Your task to perform on an android device: move a message to another label in the gmail app Image 0: 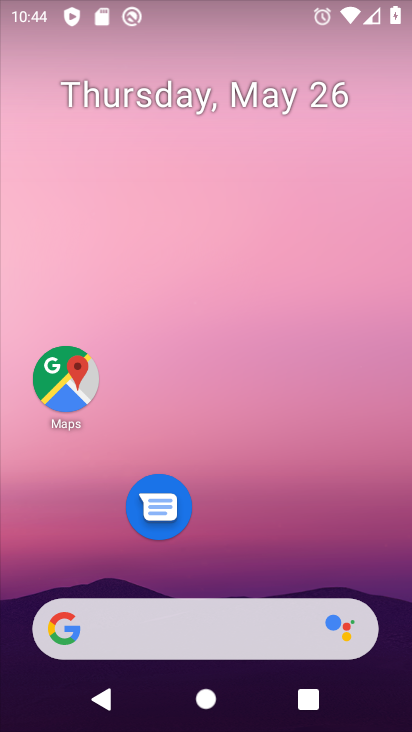
Step 0: drag from (262, 672) to (232, 79)
Your task to perform on an android device: move a message to another label in the gmail app Image 1: 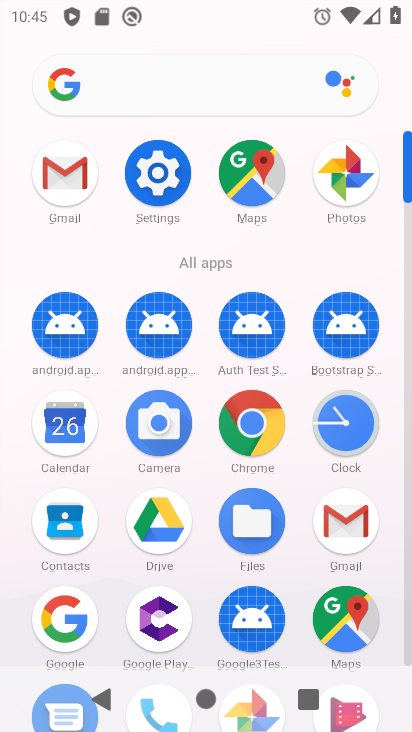
Step 1: click (315, 535)
Your task to perform on an android device: move a message to another label in the gmail app Image 2: 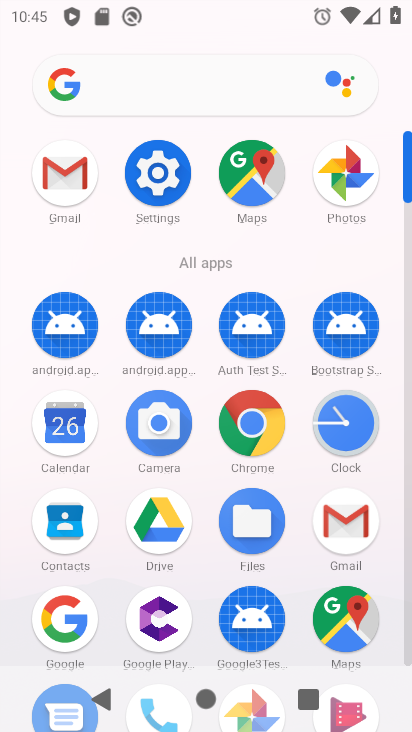
Step 2: click (315, 534)
Your task to perform on an android device: move a message to another label in the gmail app Image 3: 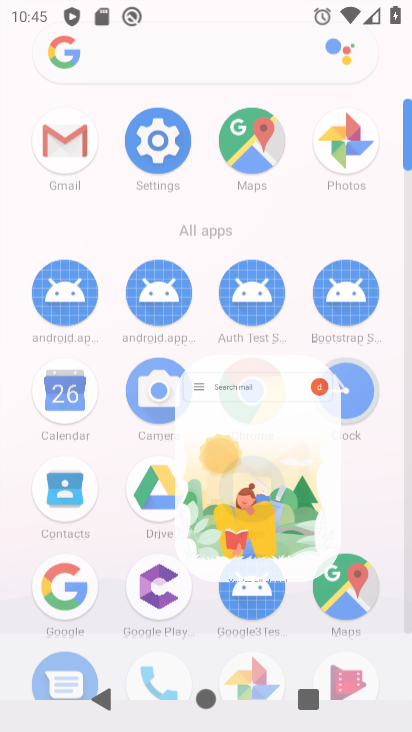
Step 3: click (315, 534)
Your task to perform on an android device: move a message to another label in the gmail app Image 4: 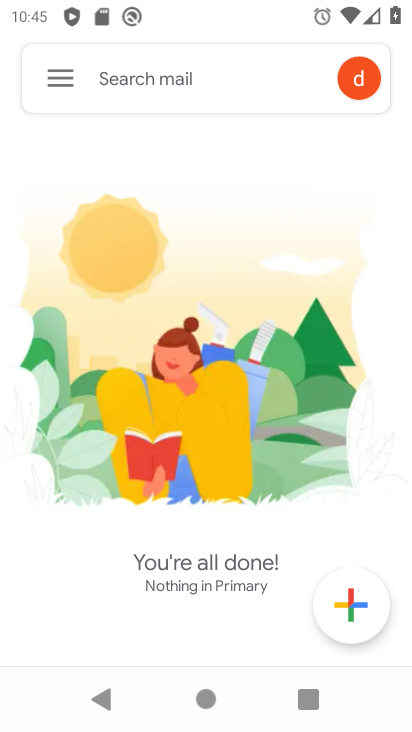
Step 4: click (78, 96)
Your task to perform on an android device: move a message to another label in the gmail app Image 5: 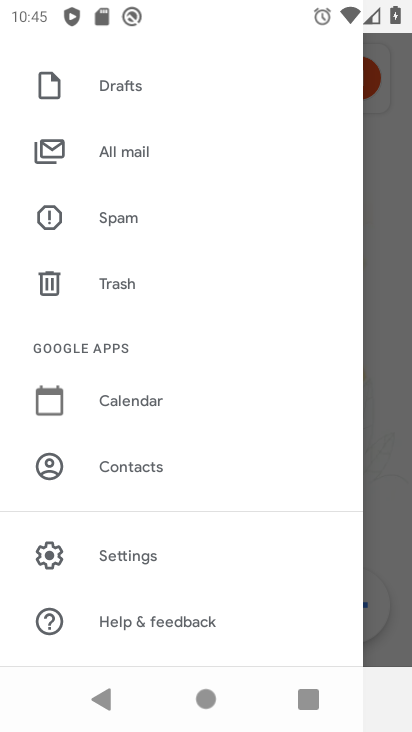
Step 5: click (117, 147)
Your task to perform on an android device: move a message to another label in the gmail app Image 6: 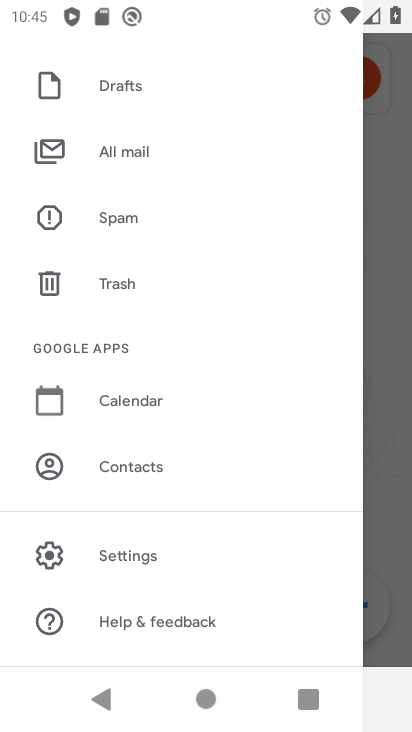
Step 6: click (117, 147)
Your task to perform on an android device: move a message to another label in the gmail app Image 7: 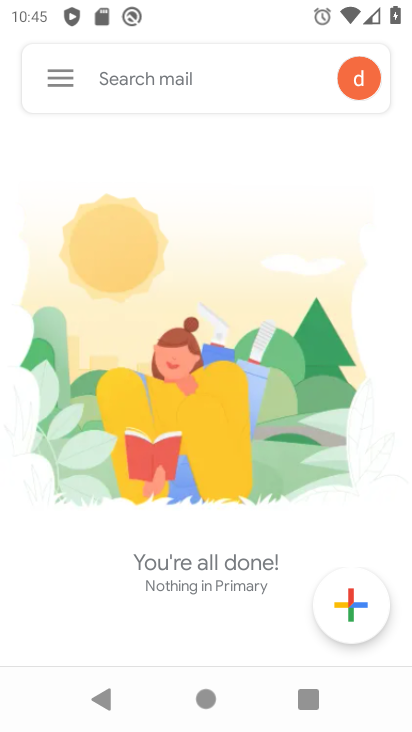
Step 7: click (122, 148)
Your task to perform on an android device: move a message to another label in the gmail app Image 8: 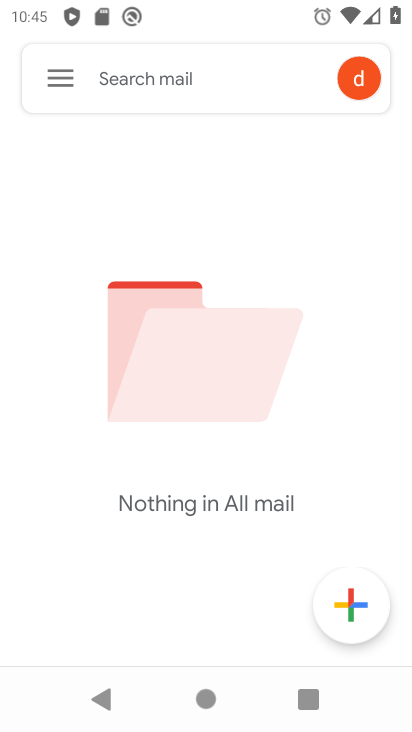
Step 8: task complete